Your task to perform on an android device: turn notification dots on Image 0: 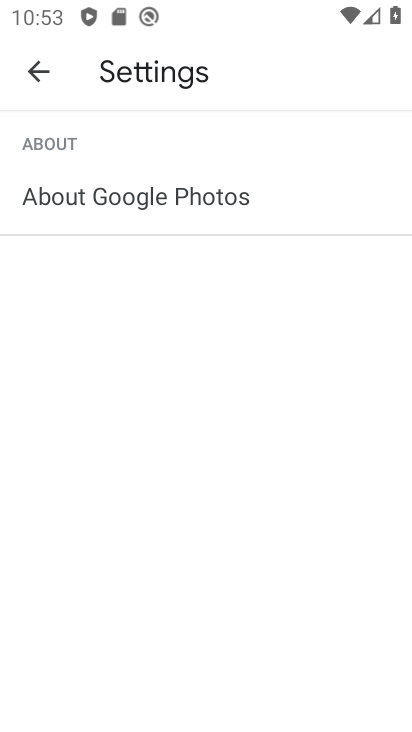
Step 0: task complete